Your task to perform on an android device: change notification settings in the gmail app Image 0: 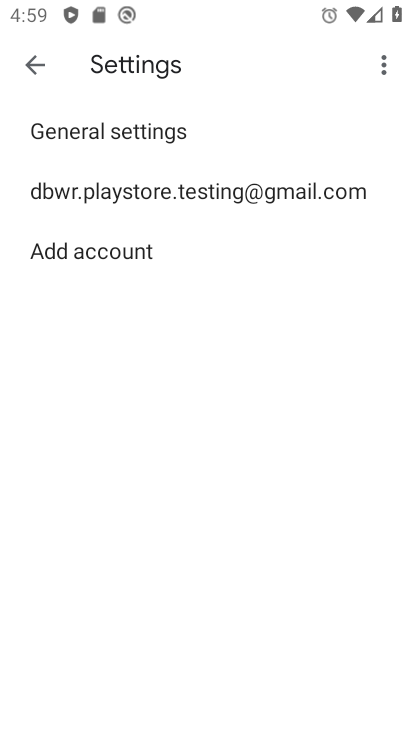
Step 0: click (137, 724)
Your task to perform on an android device: change notification settings in the gmail app Image 1: 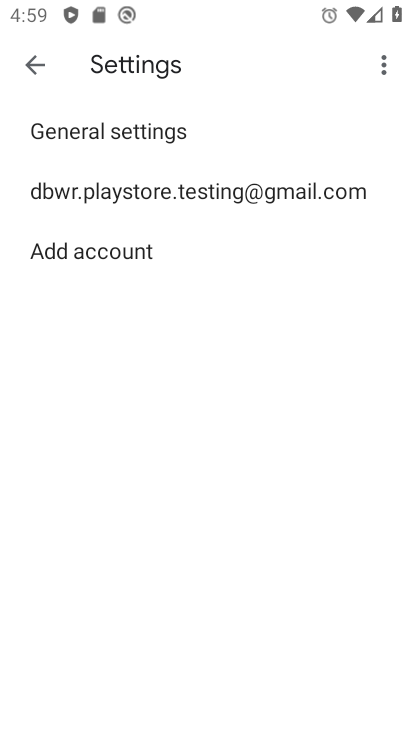
Step 1: press home button
Your task to perform on an android device: change notification settings in the gmail app Image 2: 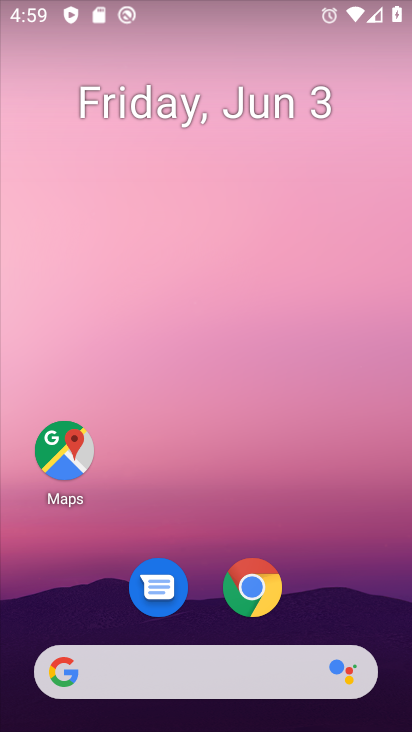
Step 2: click (233, 25)
Your task to perform on an android device: change notification settings in the gmail app Image 3: 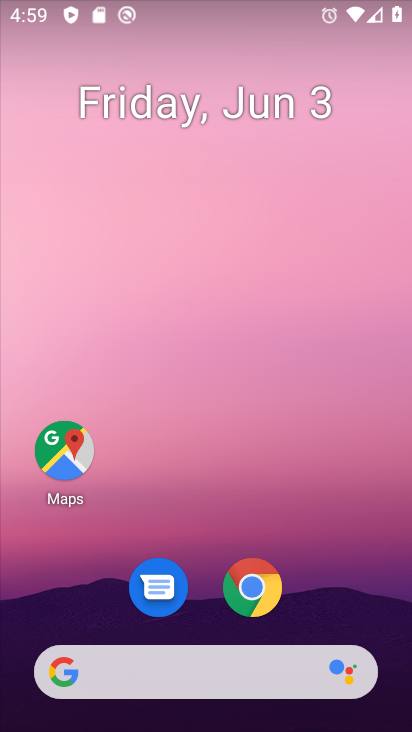
Step 3: drag from (142, 725) to (119, 110)
Your task to perform on an android device: change notification settings in the gmail app Image 4: 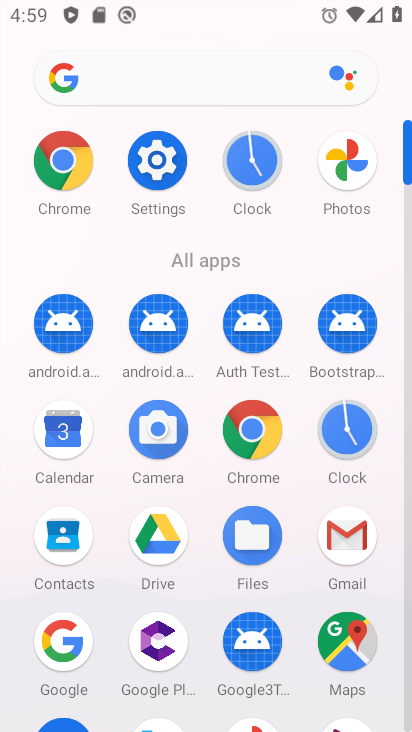
Step 4: click (150, 171)
Your task to perform on an android device: change notification settings in the gmail app Image 5: 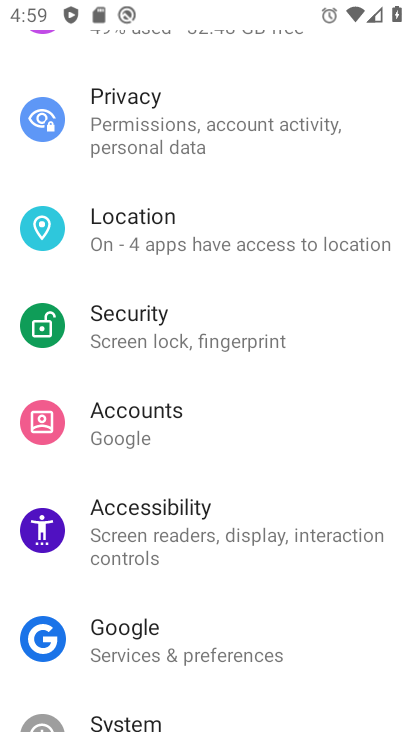
Step 5: drag from (237, 190) to (195, 724)
Your task to perform on an android device: change notification settings in the gmail app Image 6: 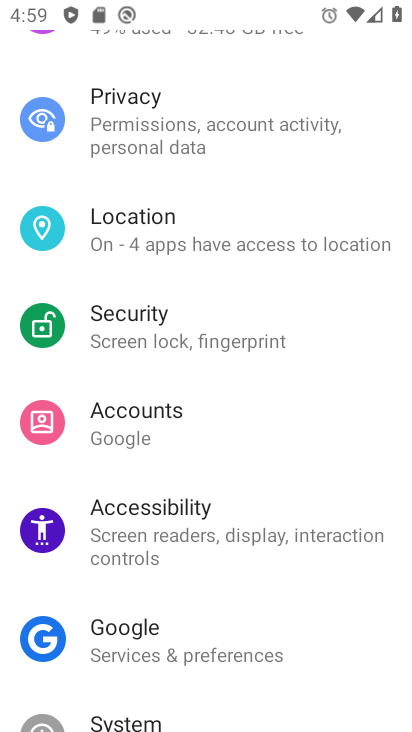
Step 6: drag from (245, 80) to (165, 706)
Your task to perform on an android device: change notification settings in the gmail app Image 7: 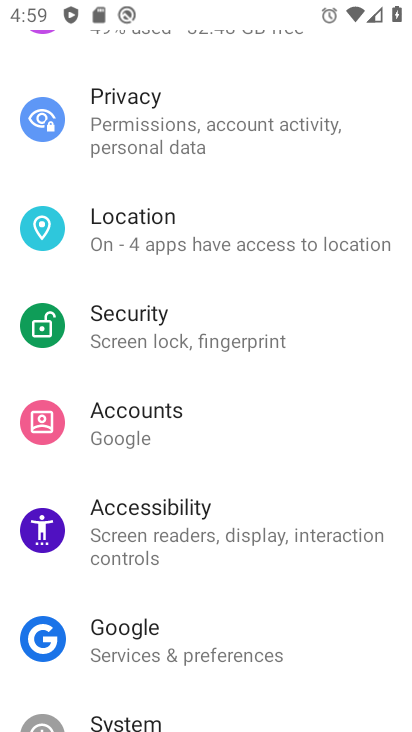
Step 7: drag from (349, 86) to (228, 730)
Your task to perform on an android device: change notification settings in the gmail app Image 8: 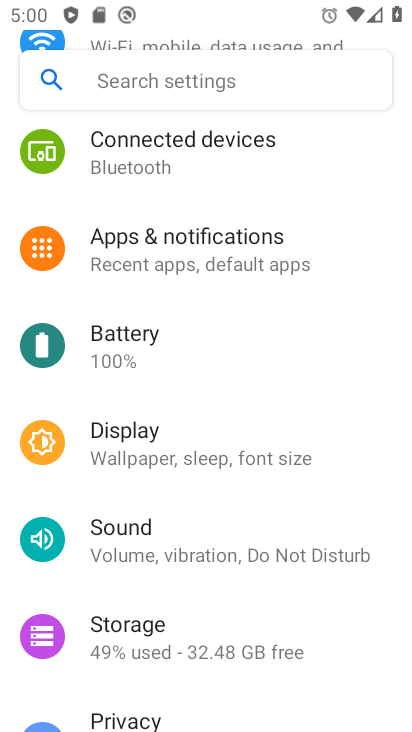
Step 8: click (234, 250)
Your task to perform on an android device: change notification settings in the gmail app Image 9: 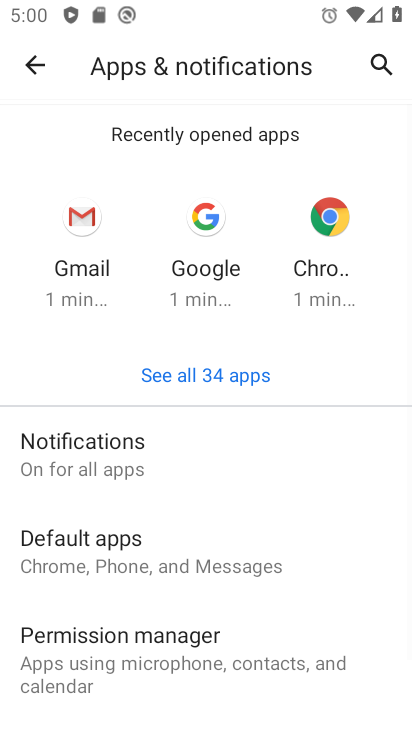
Step 9: click (309, 473)
Your task to perform on an android device: change notification settings in the gmail app Image 10: 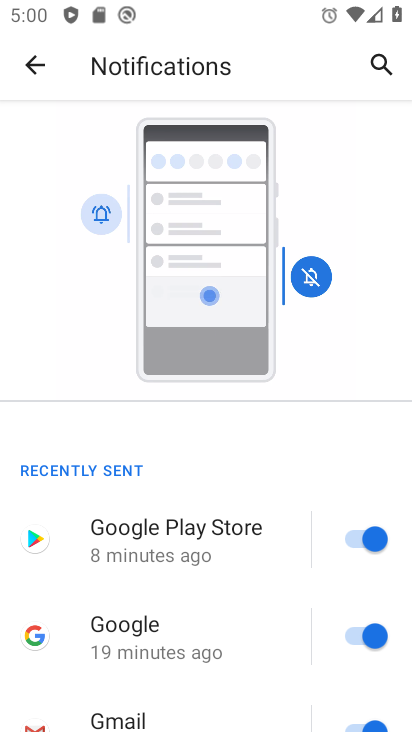
Step 10: click (372, 546)
Your task to perform on an android device: change notification settings in the gmail app Image 11: 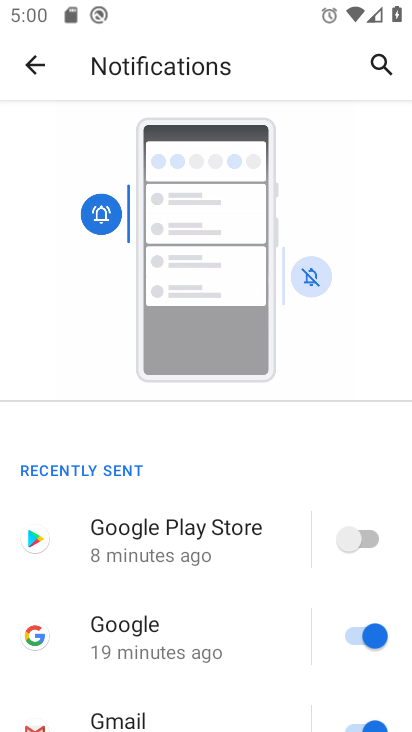
Step 11: task complete